Your task to perform on an android device: allow notifications from all sites in the chrome app Image 0: 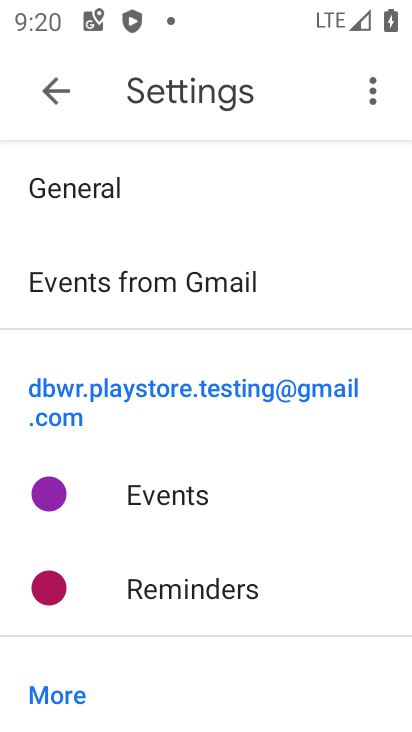
Step 0: press home button
Your task to perform on an android device: allow notifications from all sites in the chrome app Image 1: 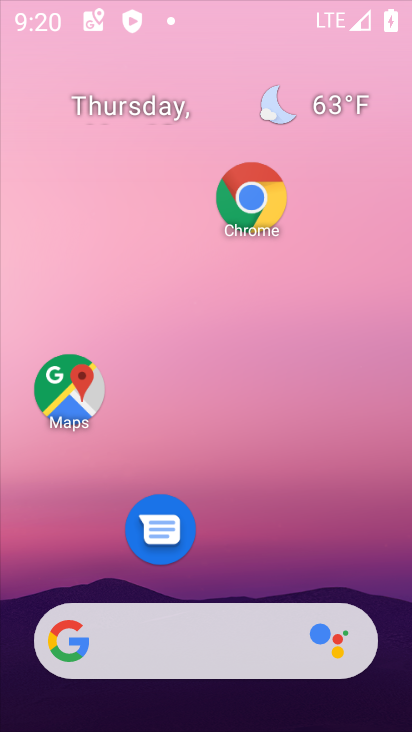
Step 1: click (409, 468)
Your task to perform on an android device: allow notifications from all sites in the chrome app Image 2: 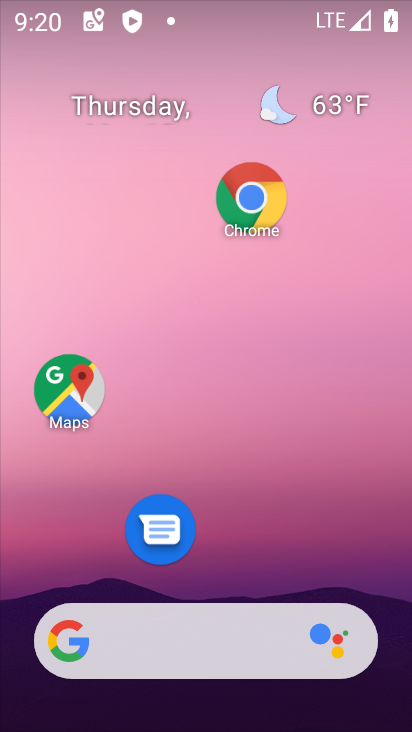
Step 2: drag from (328, 580) to (370, 119)
Your task to perform on an android device: allow notifications from all sites in the chrome app Image 3: 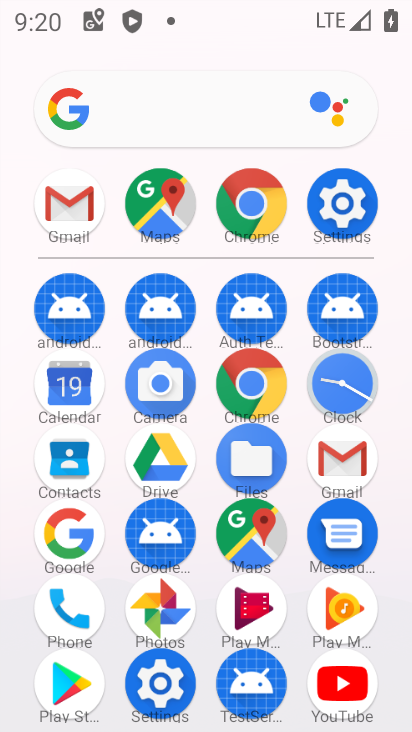
Step 3: click (256, 397)
Your task to perform on an android device: allow notifications from all sites in the chrome app Image 4: 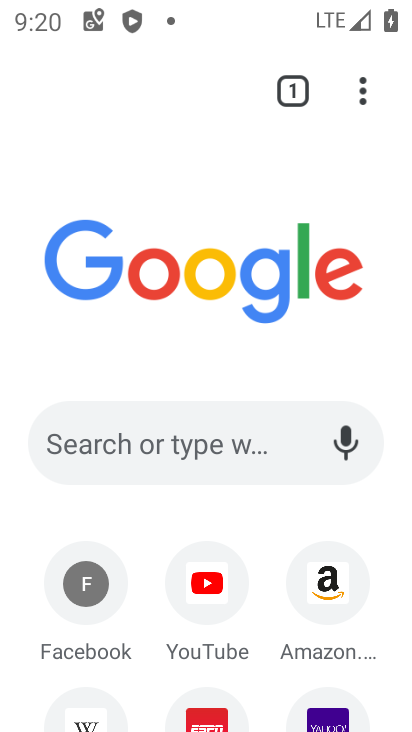
Step 4: click (363, 105)
Your task to perform on an android device: allow notifications from all sites in the chrome app Image 5: 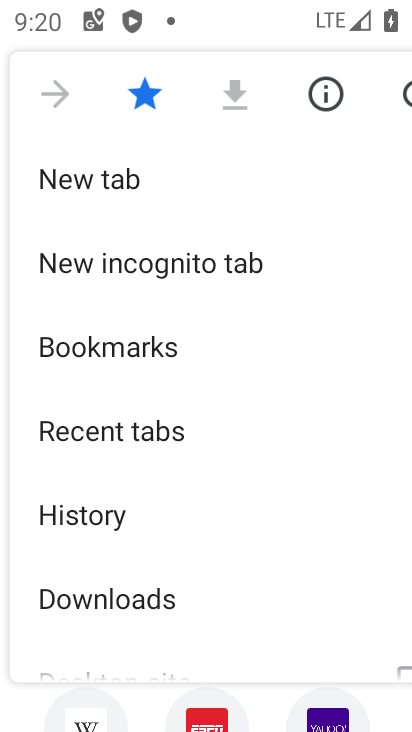
Step 5: drag from (201, 578) to (287, 207)
Your task to perform on an android device: allow notifications from all sites in the chrome app Image 6: 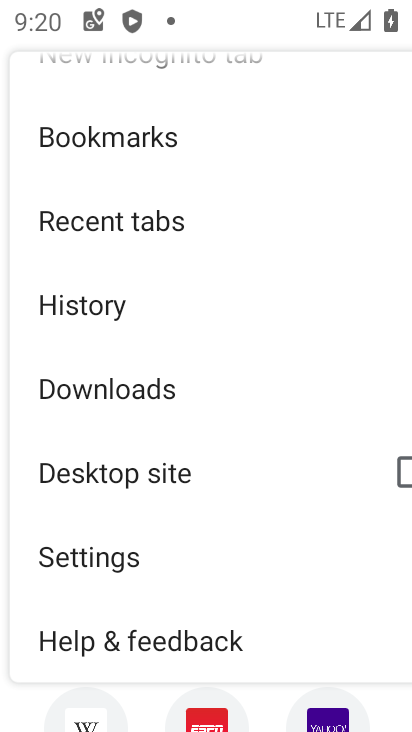
Step 6: click (208, 543)
Your task to perform on an android device: allow notifications from all sites in the chrome app Image 7: 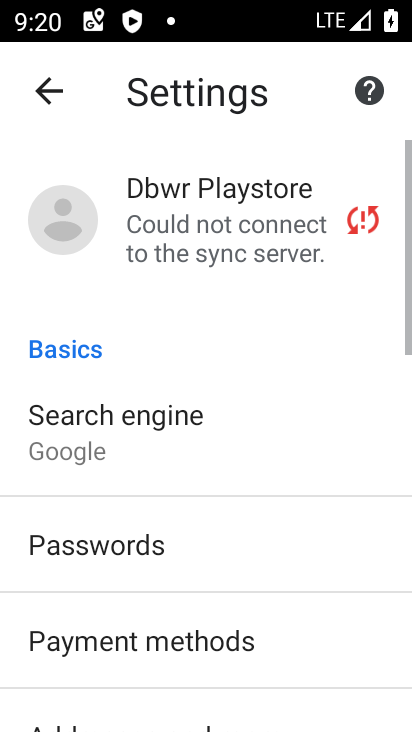
Step 7: drag from (208, 543) to (205, 199)
Your task to perform on an android device: allow notifications from all sites in the chrome app Image 8: 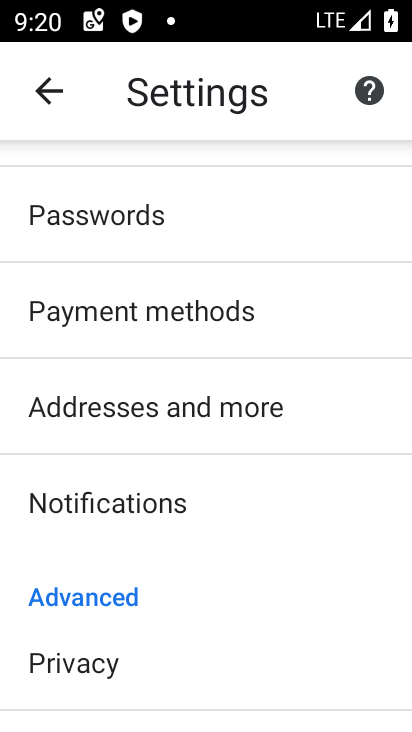
Step 8: drag from (160, 640) to (189, 438)
Your task to perform on an android device: allow notifications from all sites in the chrome app Image 9: 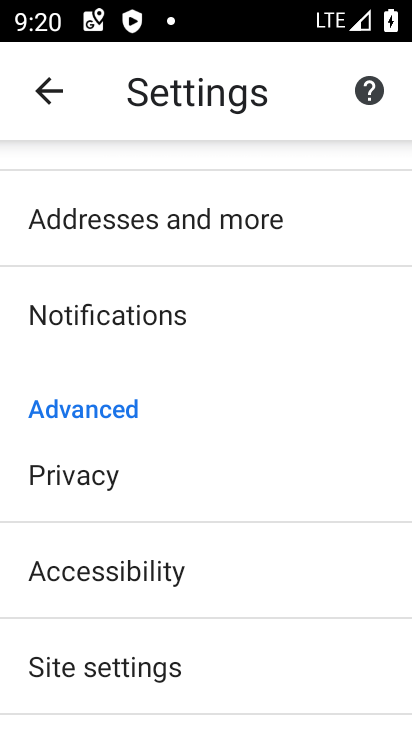
Step 9: click (178, 319)
Your task to perform on an android device: allow notifications from all sites in the chrome app Image 10: 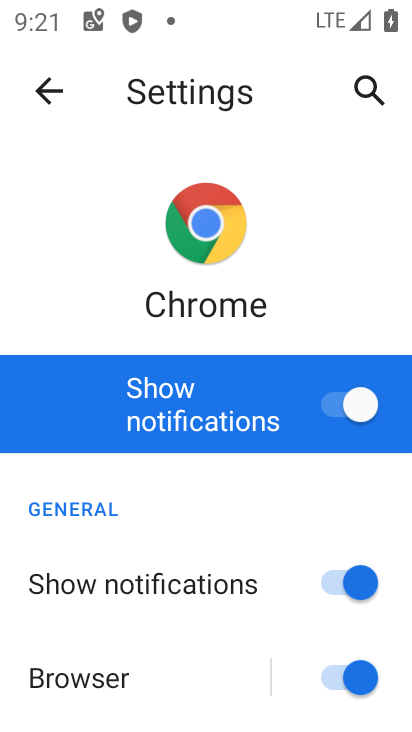
Step 10: task complete